Your task to perform on an android device: open a bookmark in the chrome app Image 0: 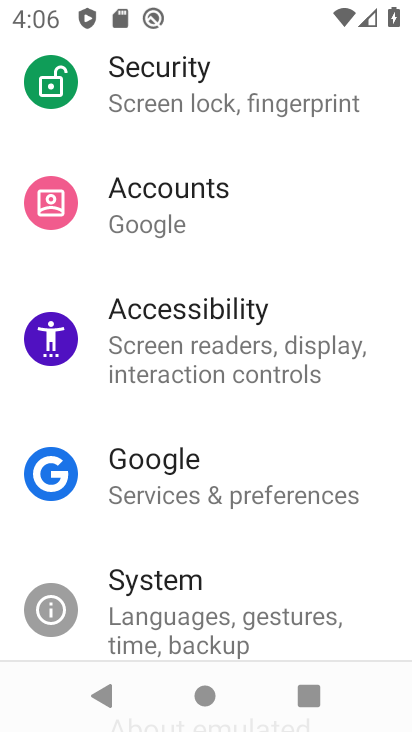
Step 0: press back button
Your task to perform on an android device: open a bookmark in the chrome app Image 1: 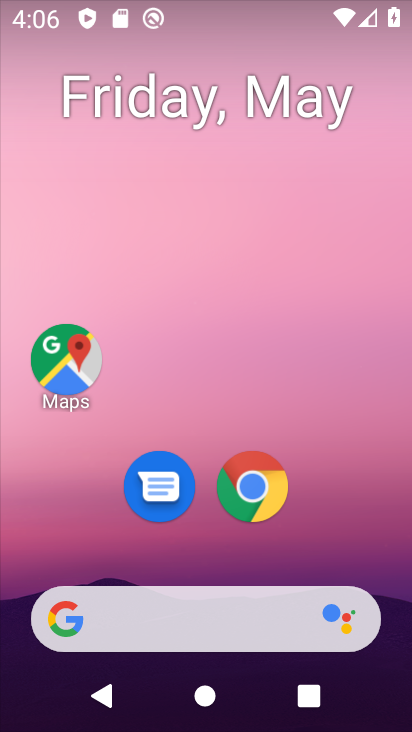
Step 1: click (250, 477)
Your task to perform on an android device: open a bookmark in the chrome app Image 2: 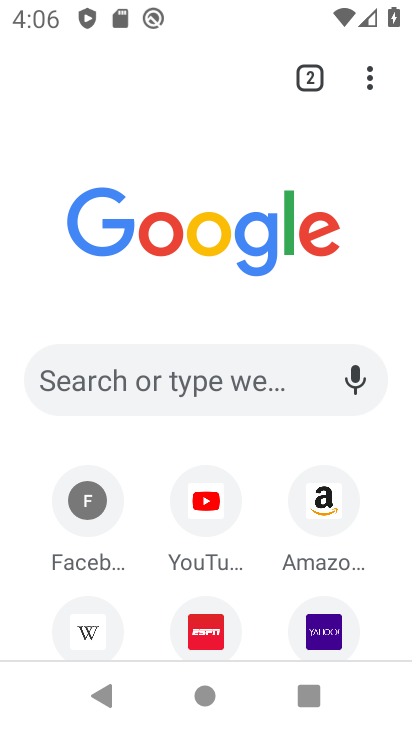
Step 2: task complete